Your task to perform on an android device: Go to ESPN.com Image 0: 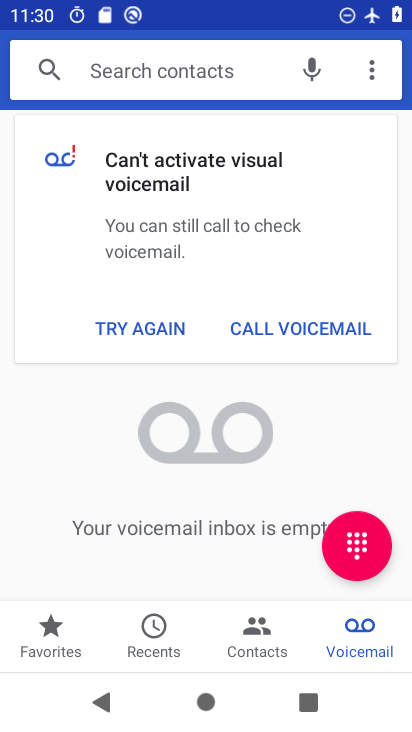
Step 0: press home button
Your task to perform on an android device: Go to ESPN.com Image 1: 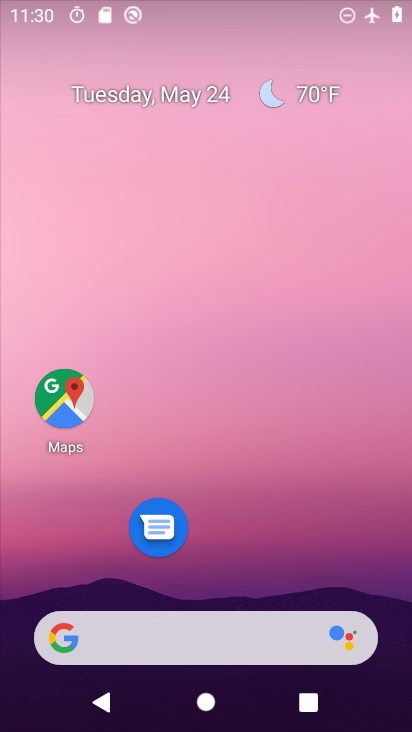
Step 1: drag from (263, 531) to (285, 47)
Your task to perform on an android device: Go to ESPN.com Image 2: 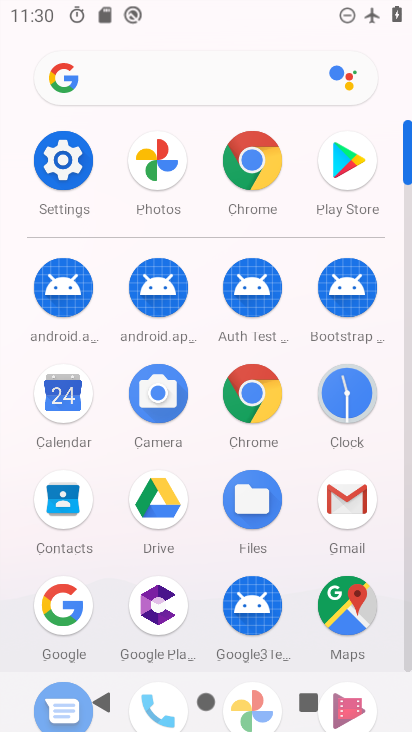
Step 2: click (64, 609)
Your task to perform on an android device: Go to ESPN.com Image 3: 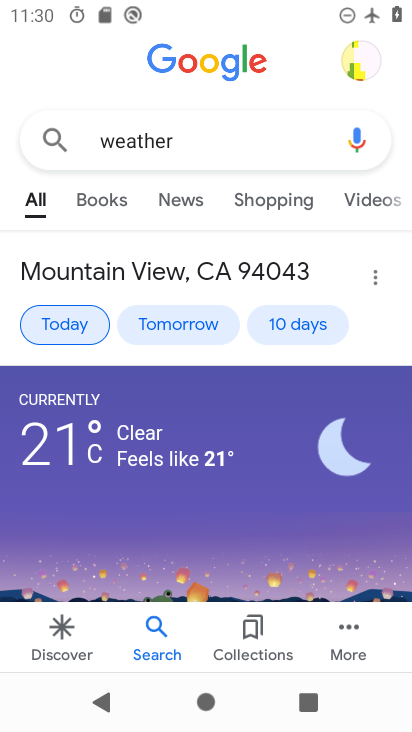
Step 3: click (220, 141)
Your task to perform on an android device: Go to ESPN.com Image 4: 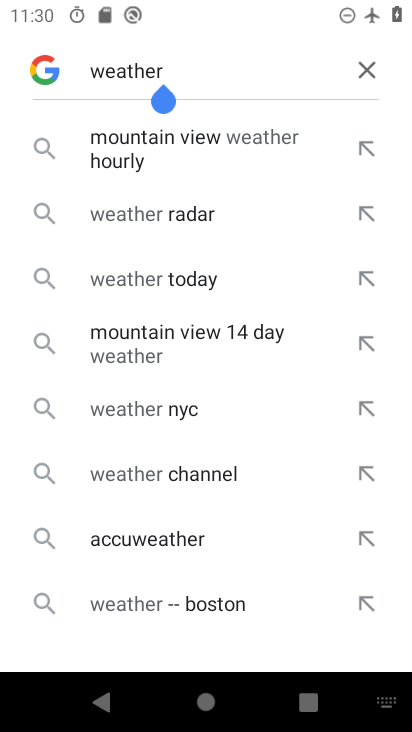
Step 4: click (360, 63)
Your task to perform on an android device: Go to ESPN.com Image 5: 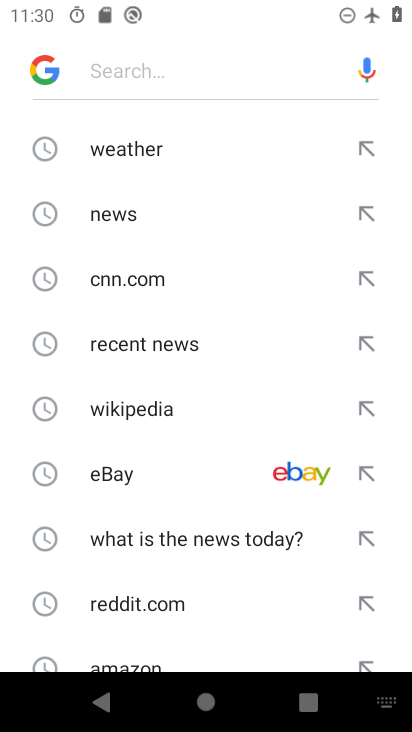
Step 5: task complete